Your task to perform on an android device: What's the weather today? Image 0: 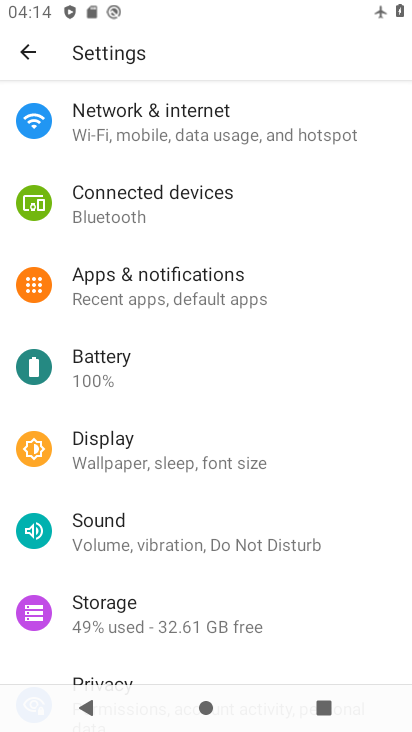
Step 0: press home button
Your task to perform on an android device: What's the weather today? Image 1: 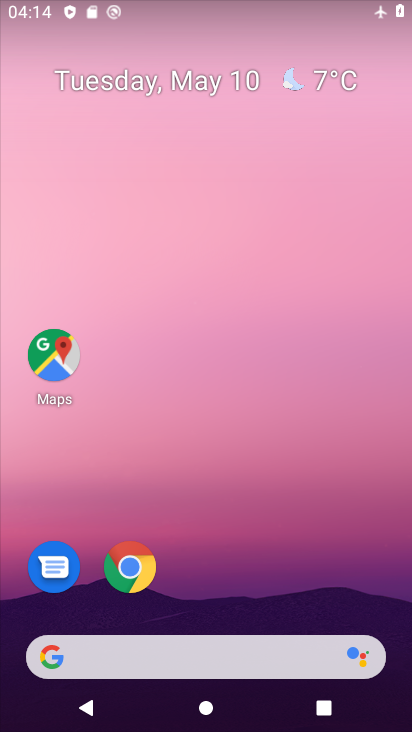
Step 1: drag from (222, 560) to (201, 63)
Your task to perform on an android device: What's the weather today? Image 2: 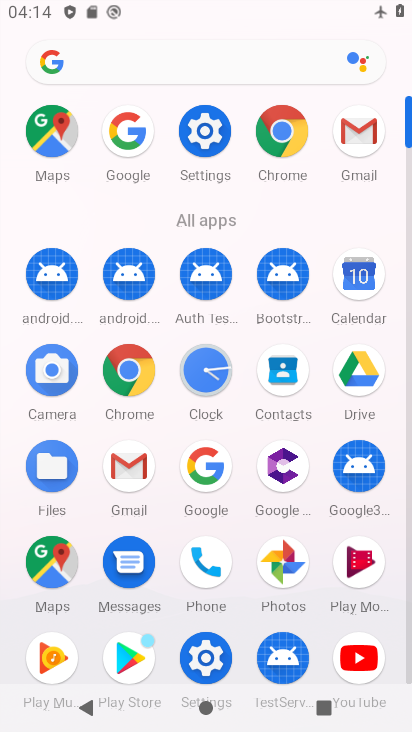
Step 2: click (125, 129)
Your task to perform on an android device: What's the weather today? Image 3: 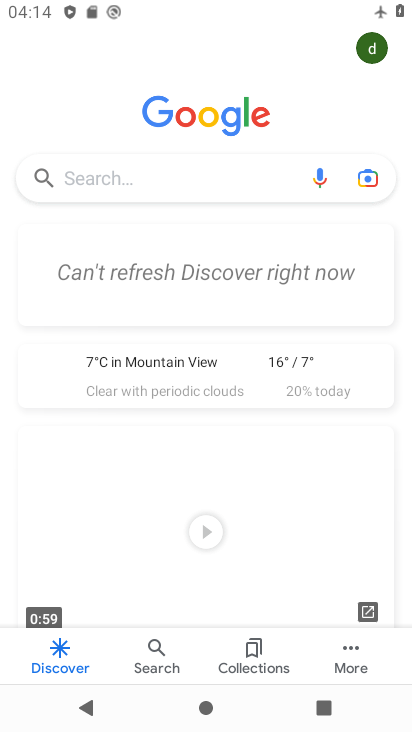
Step 3: click (167, 187)
Your task to perform on an android device: What's the weather today? Image 4: 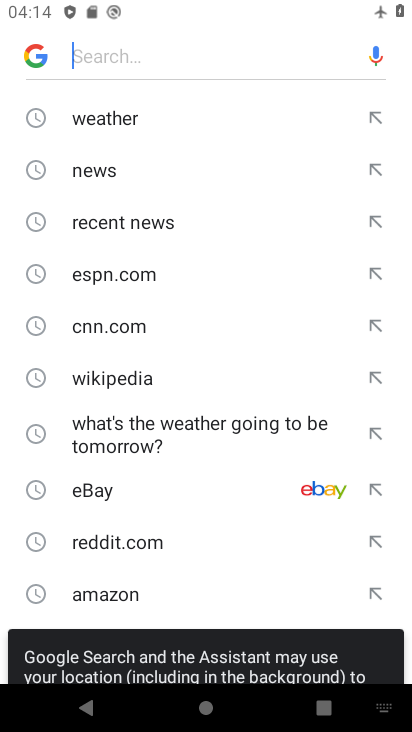
Step 4: click (117, 120)
Your task to perform on an android device: What's the weather today? Image 5: 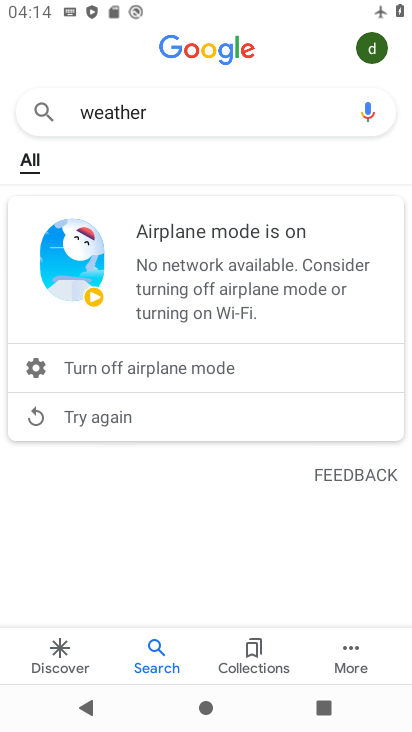
Step 5: task complete